Your task to perform on an android device: Open notification settings Image 0: 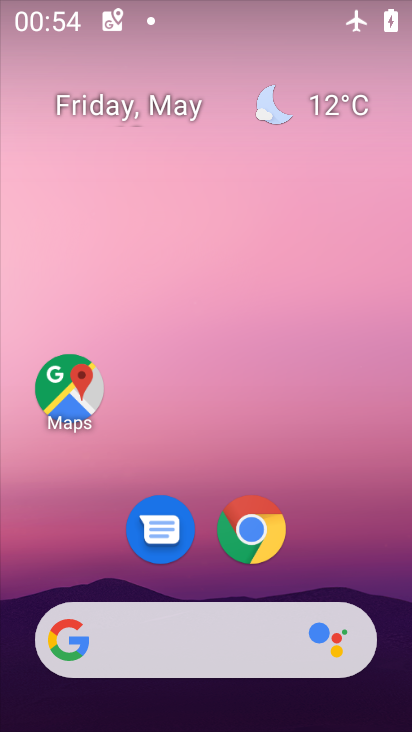
Step 0: drag from (331, 473) to (329, 194)
Your task to perform on an android device: Open notification settings Image 1: 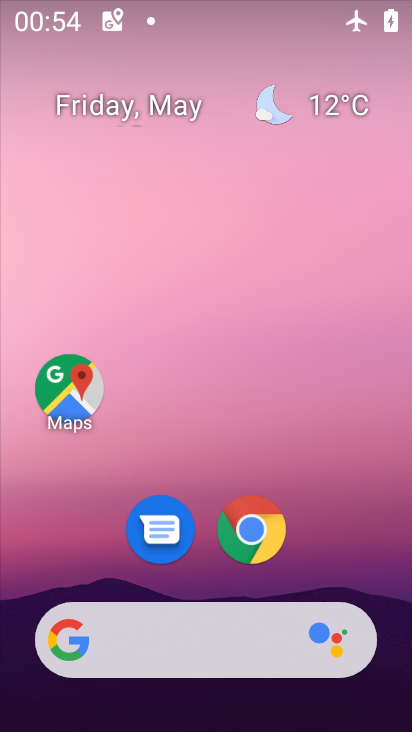
Step 1: drag from (319, 574) to (347, 189)
Your task to perform on an android device: Open notification settings Image 2: 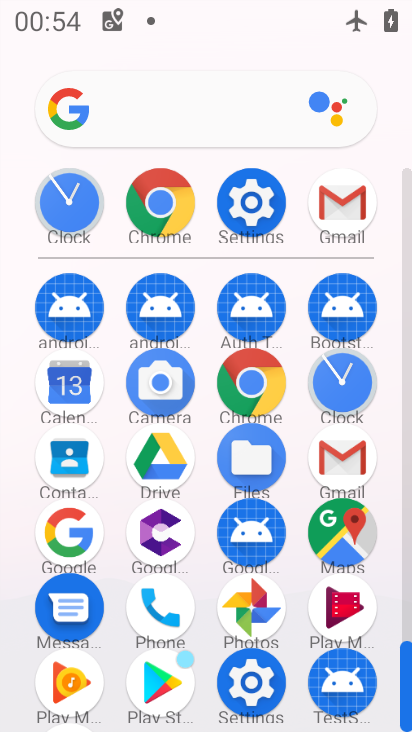
Step 2: click (236, 195)
Your task to perform on an android device: Open notification settings Image 3: 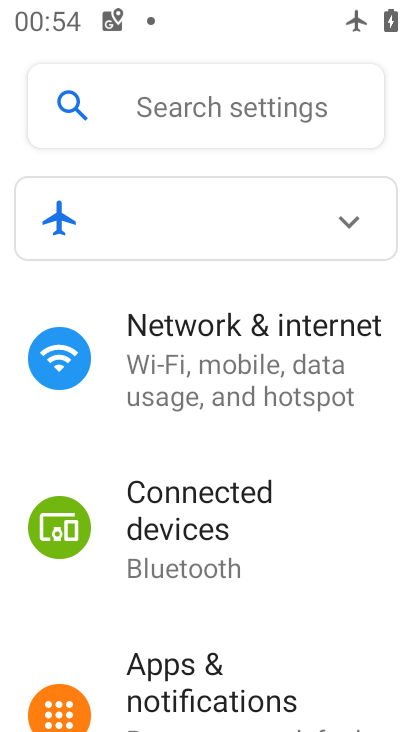
Step 3: click (167, 678)
Your task to perform on an android device: Open notification settings Image 4: 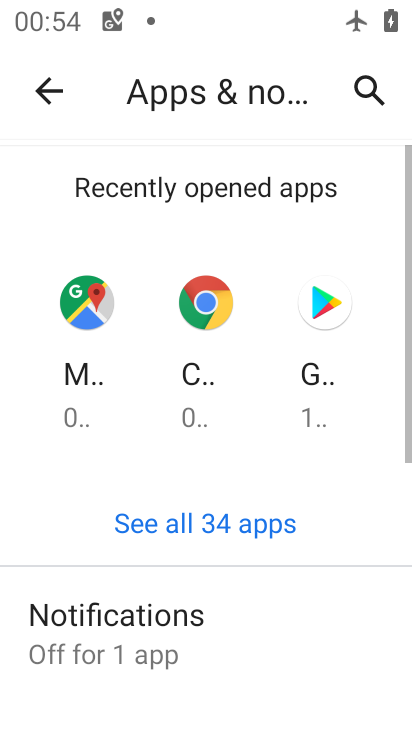
Step 4: drag from (220, 636) to (284, 277)
Your task to perform on an android device: Open notification settings Image 5: 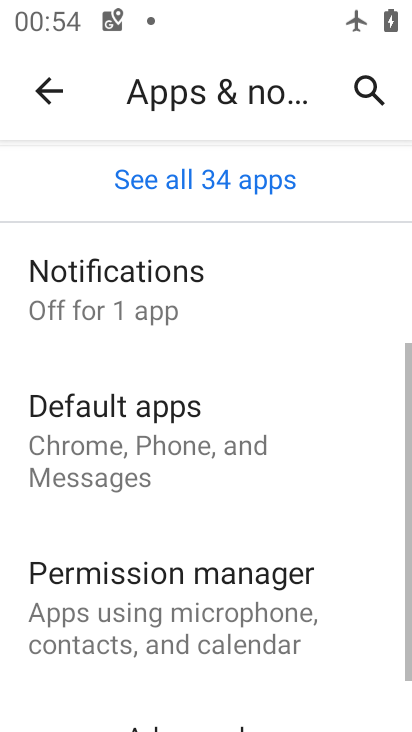
Step 5: click (132, 541)
Your task to perform on an android device: Open notification settings Image 6: 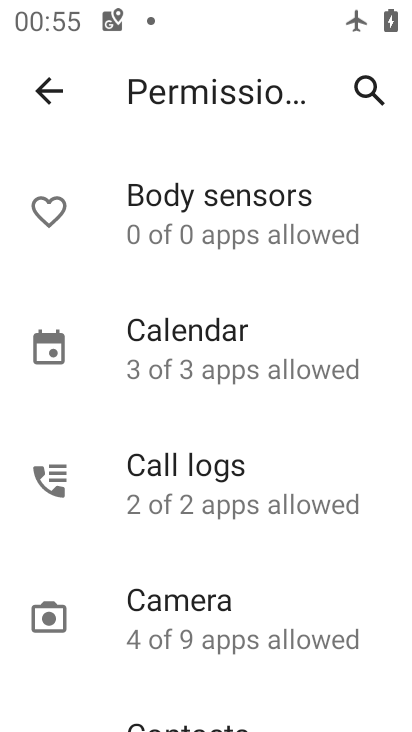
Step 6: task complete